Your task to perform on an android device: Toggle notifications for the Google Photos app Image 0: 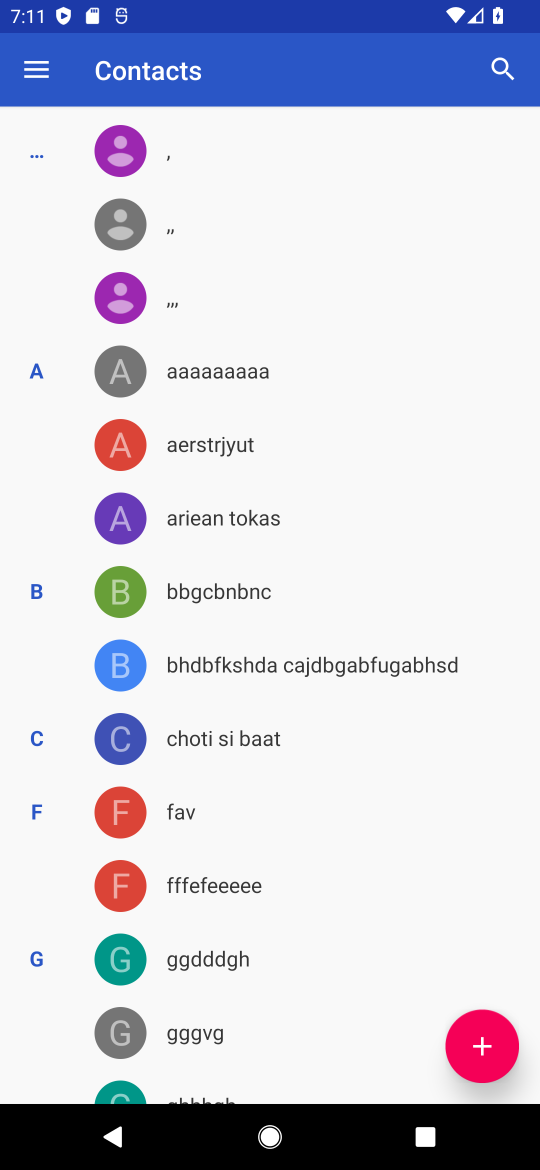
Step 0: press home button
Your task to perform on an android device: Toggle notifications for the Google Photos app Image 1: 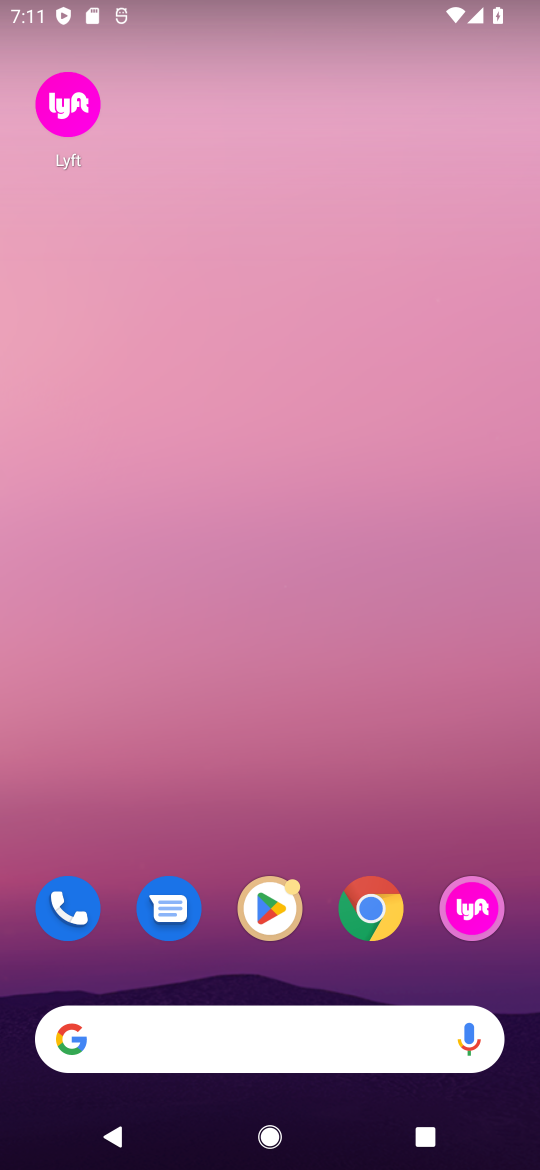
Step 1: drag from (256, 809) to (250, 180)
Your task to perform on an android device: Toggle notifications for the Google Photos app Image 2: 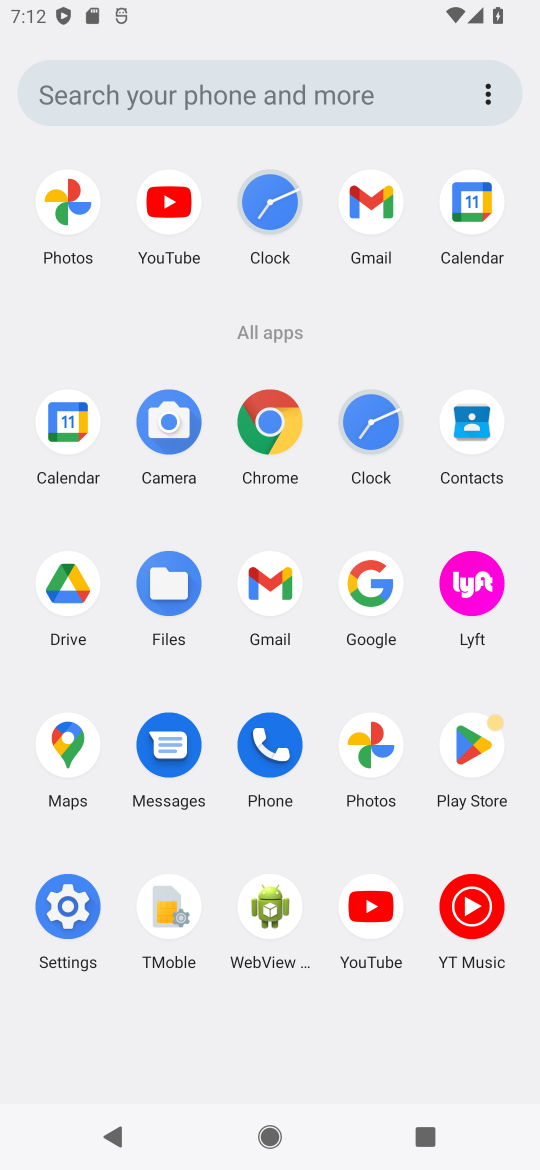
Step 2: click (69, 192)
Your task to perform on an android device: Toggle notifications for the Google Photos app Image 3: 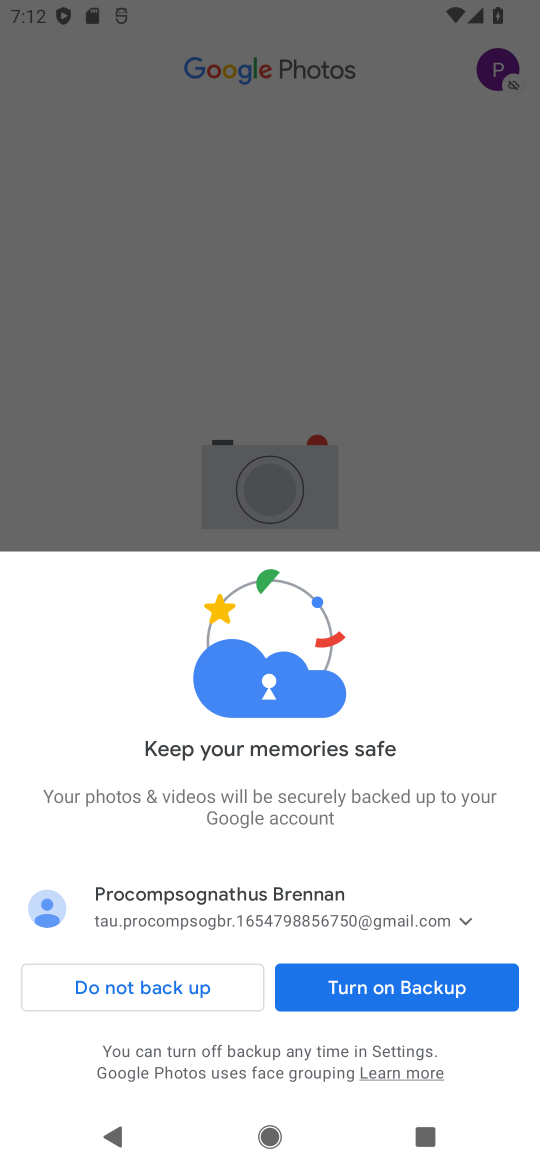
Step 3: click (160, 976)
Your task to perform on an android device: Toggle notifications for the Google Photos app Image 4: 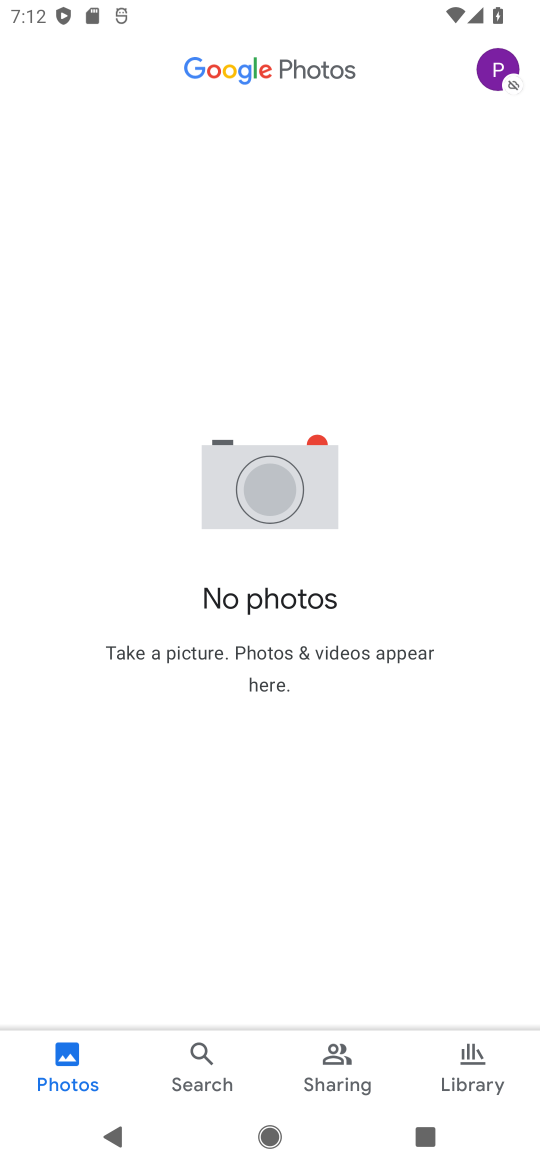
Step 4: click (495, 58)
Your task to perform on an android device: Toggle notifications for the Google Photos app Image 5: 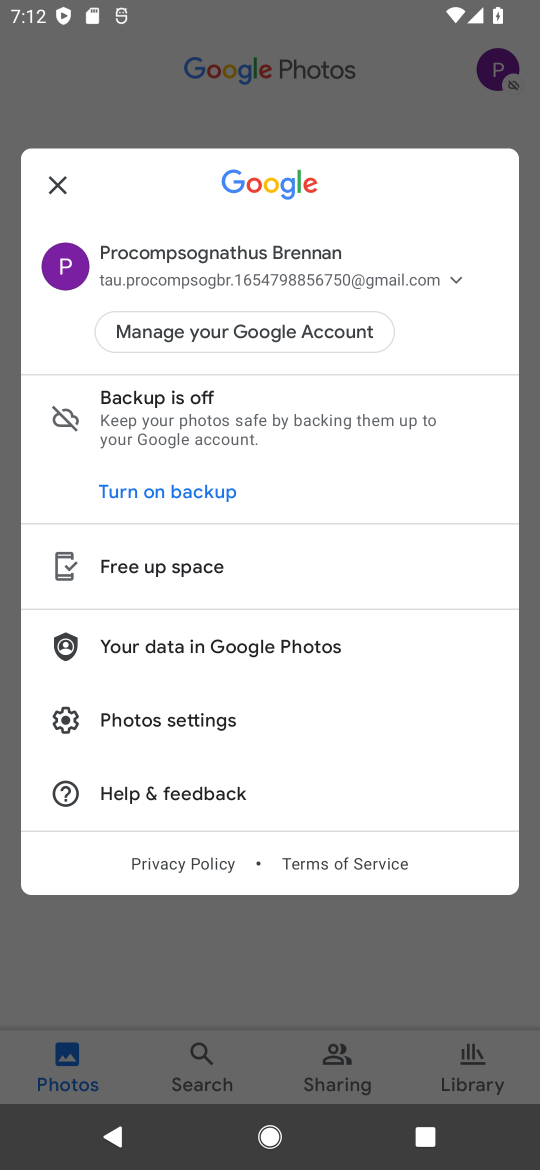
Step 5: click (127, 713)
Your task to perform on an android device: Toggle notifications for the Google Photos app Image 6: 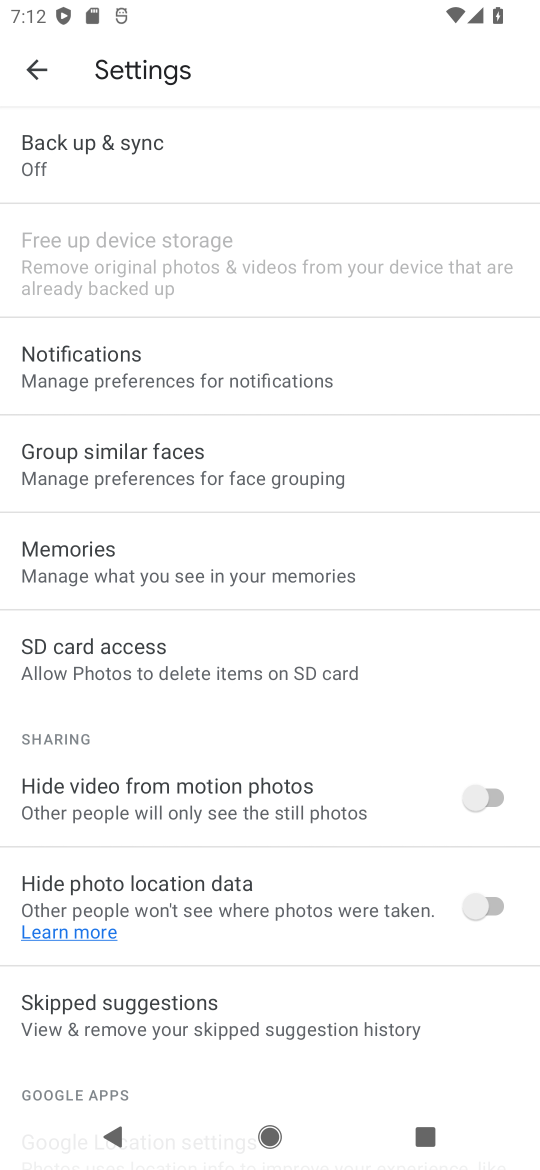
Step 6: click (77, 345)
Your task to perform on an android device: Toggle notifications for the Google Photos app Image 7: 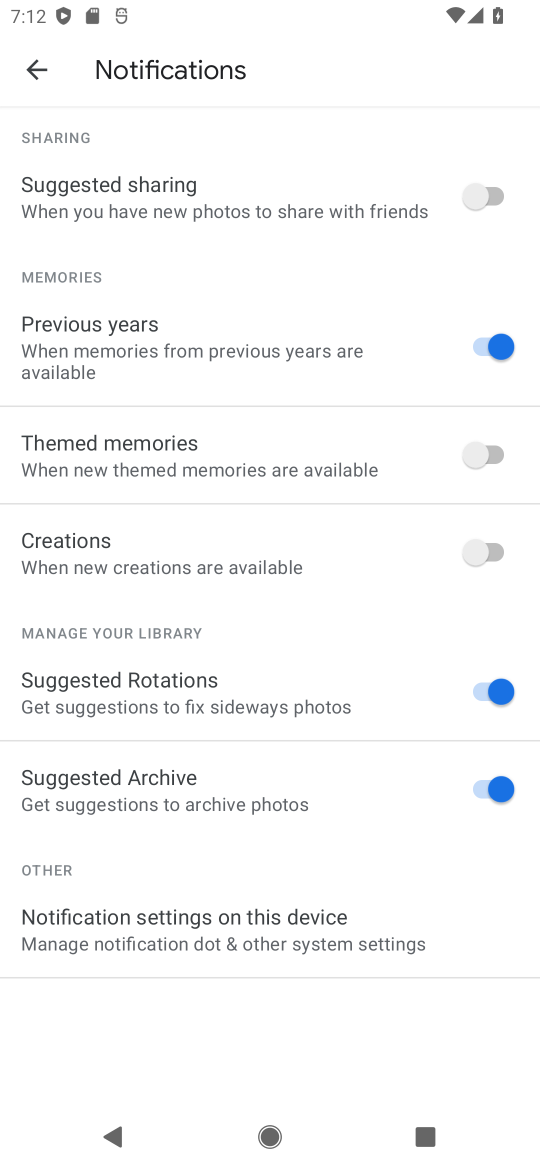
Step 7: click (133, 913)
Your task to perform on an android device: Toggle notifications for the Google Photos app Image 8: 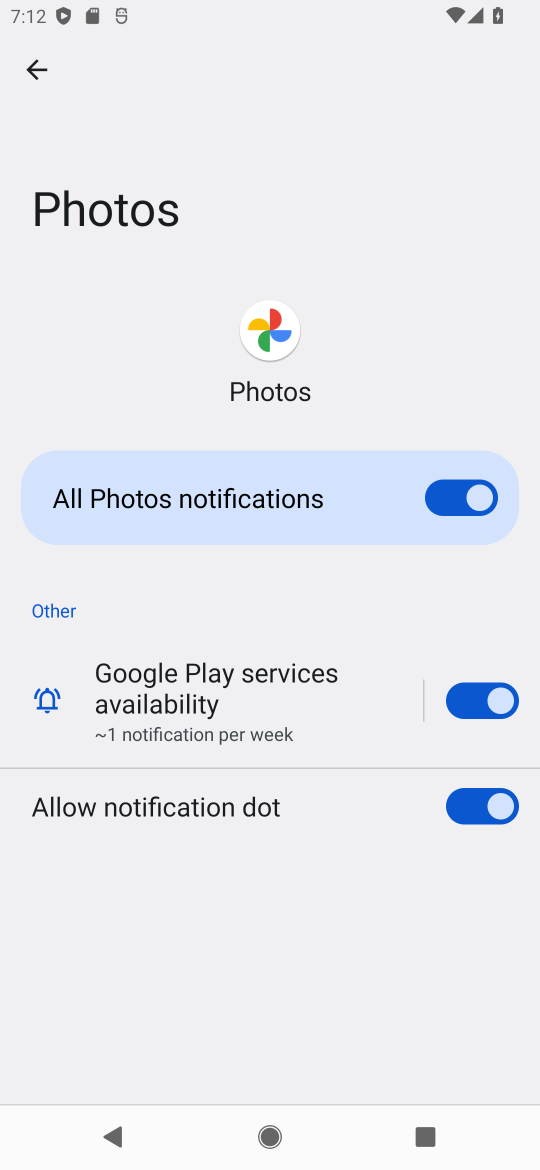
Step 8: click (459, 508)
Your task to perform on an android device: Toggle notifications for the Google Photos app Image 9: 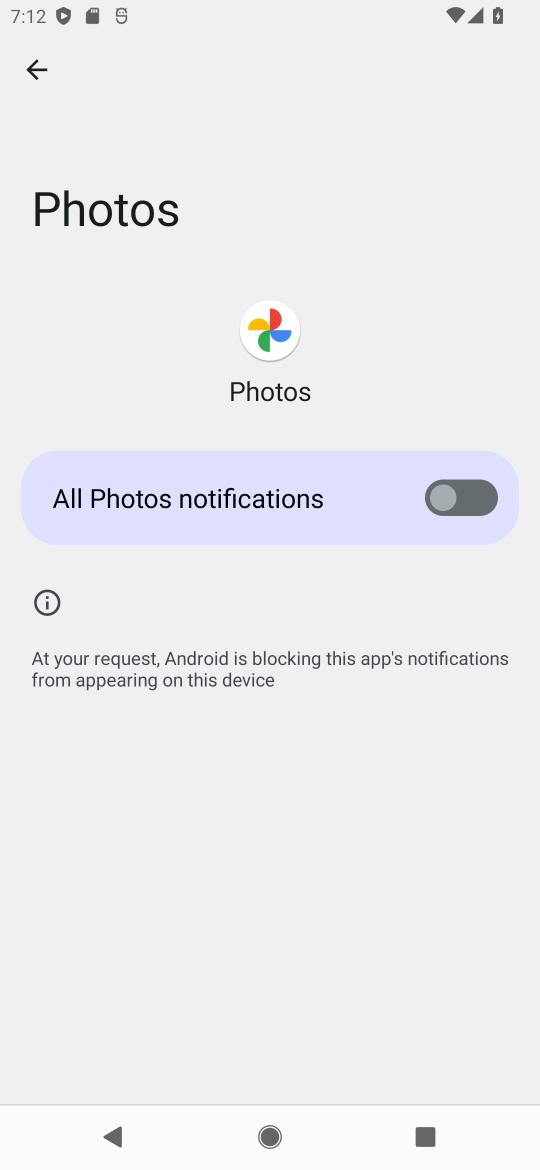
Step 9: task complete